Your task to perform on an android device: Look up the best rated coffee table on Ikea Image 0: 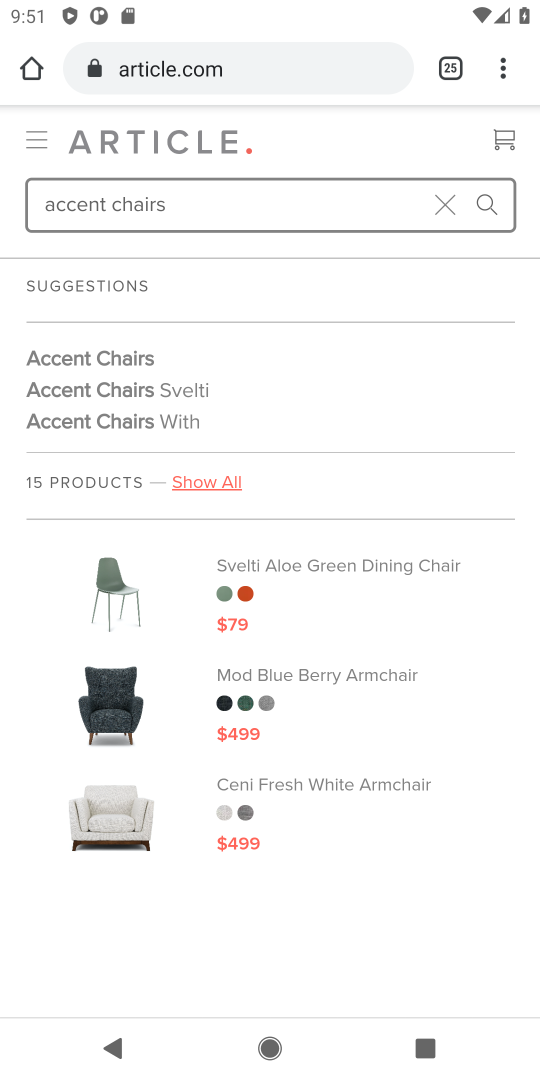
Step 0: press home button
Your task to perform on an android device: Look up the best rated coffee table on Ikea Image 1: 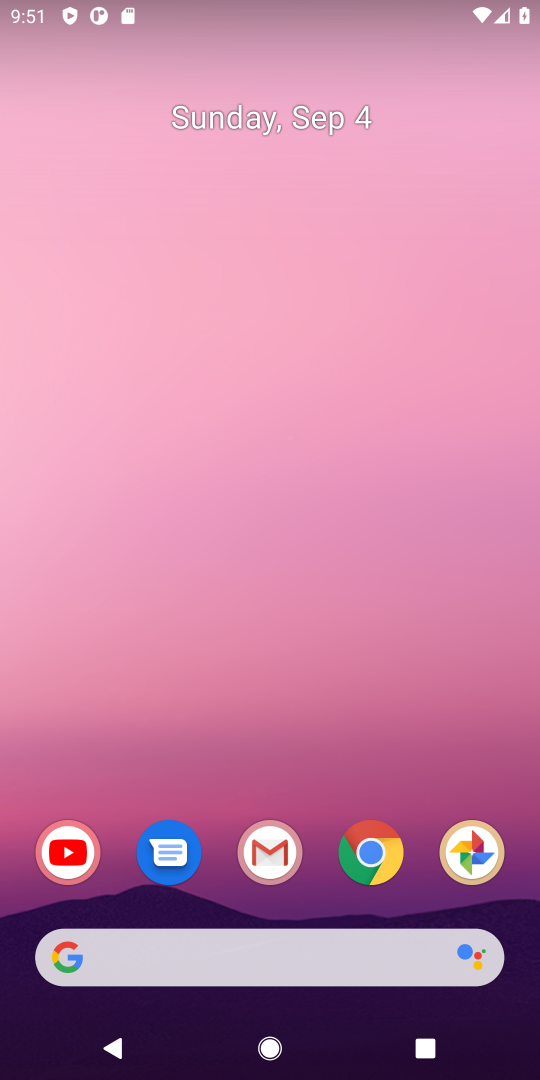
Step 1: drag from (174, 109) to (147, 48)
Your task to perform on an android device: Look up the best rated coffee table on Ikea Image 2: 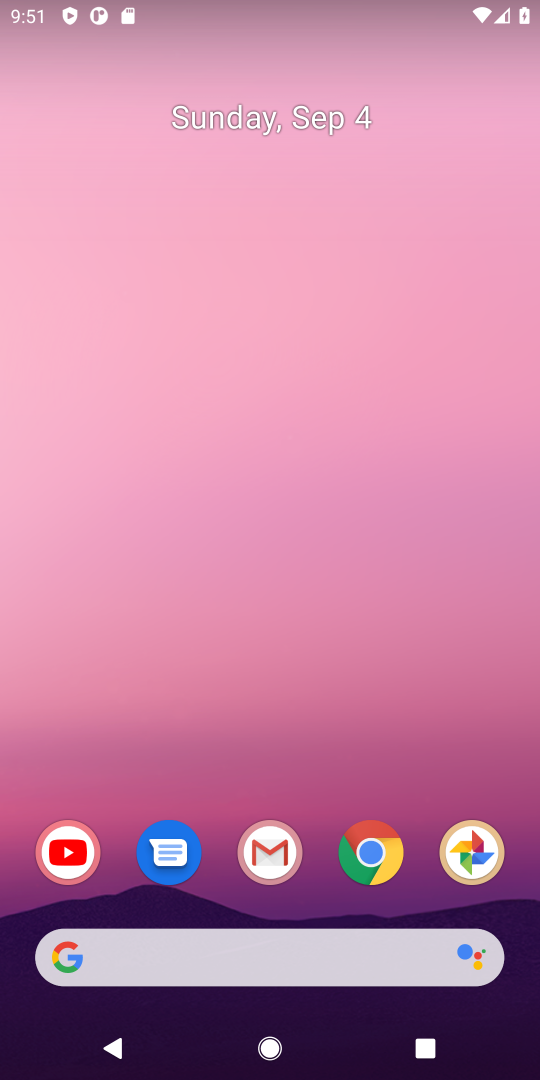
Step 2: drag from (414, 823) to (189, 174)
Your task to perform on an android device: Look up the best rated coffee table on Ikea Image 3: 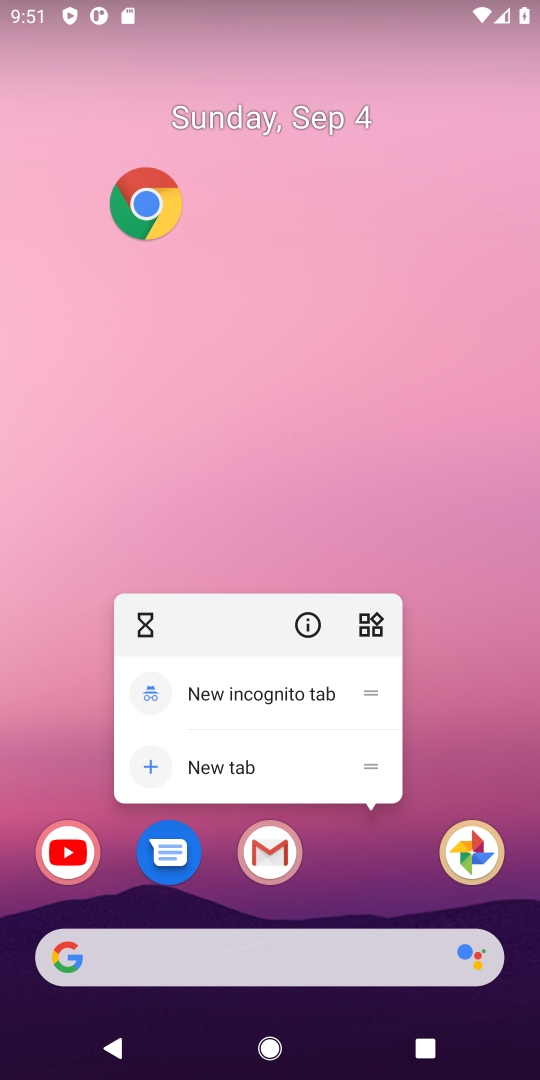
Step 3: click (307, 492)
Your task to perform on an android device: Look up the best rated coffee table on Ikea Image 4: 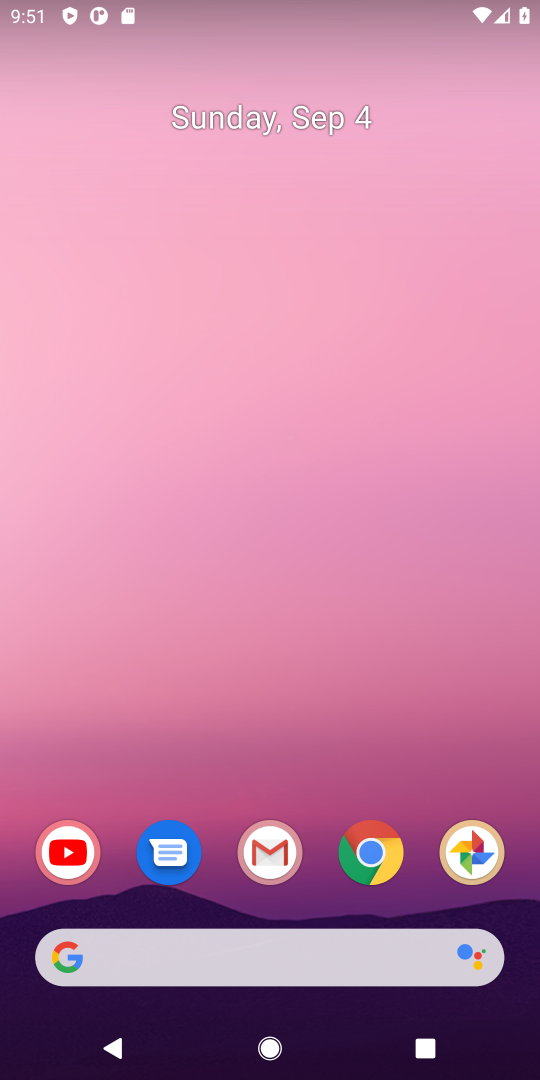
Step 4: drag from (361, 553) to (253, 12)
Your task to perform on an android device: Look up the best rated coffee table on Ikea Image 5: 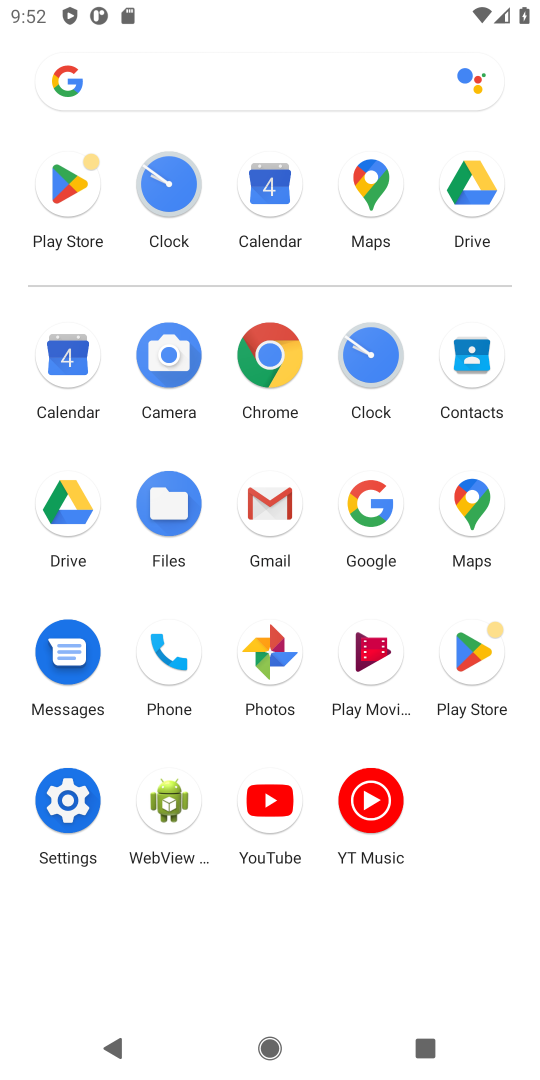
Step 5: click (346, 494)
Your task to perform on an android device: Look up the best rated coffee table on Ikea Image 6: 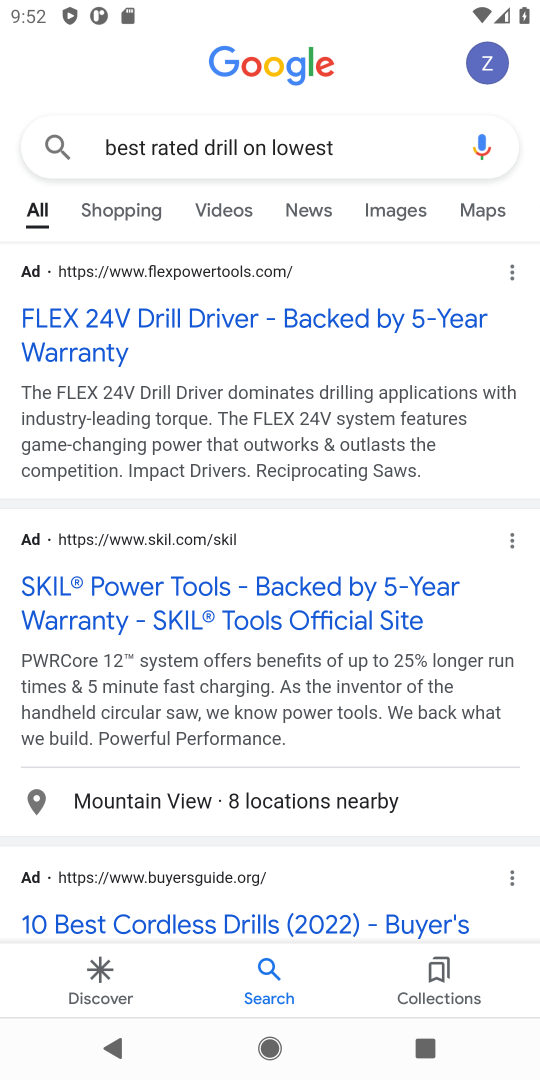
Step 6: press back button
Your task to perform on an android device: Look up the best rated coffee table on Ikea Image 7: 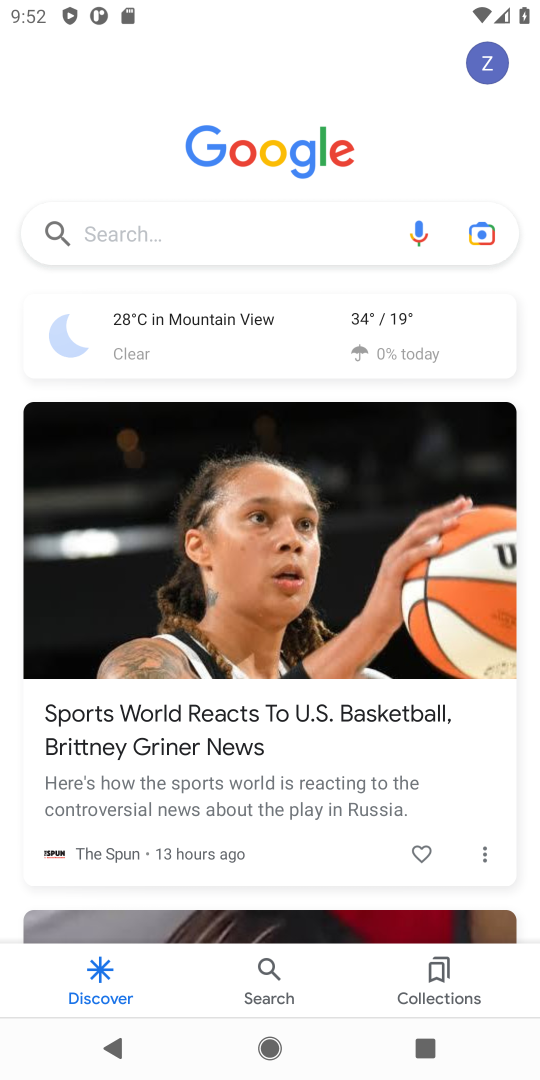
Step 7: click (124, 244)
Your task to perform on an android device: Look up the best rated coffee table on Ikea Image 8: 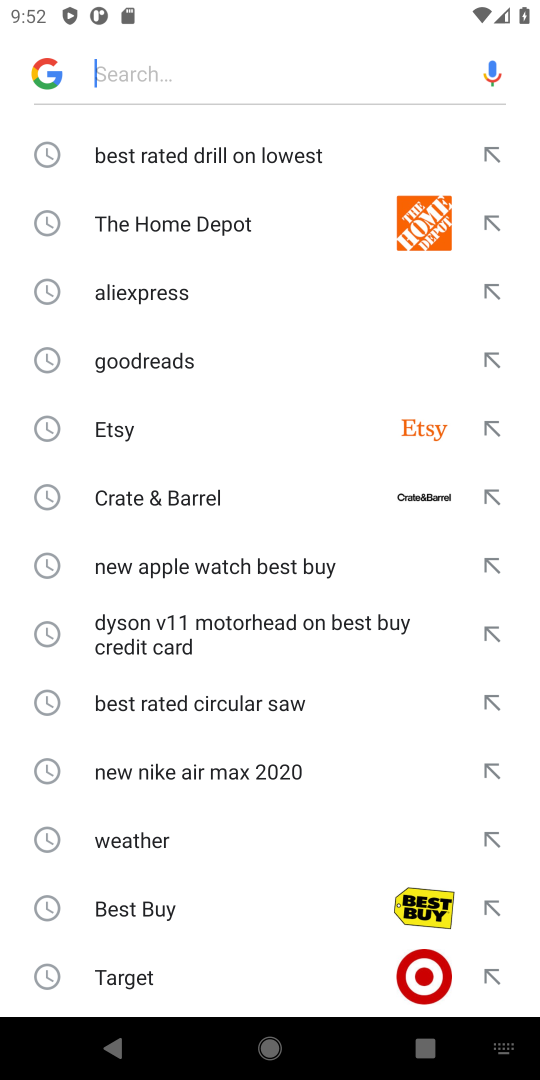
Step 8: type " Ikea"
Your task to perform on an android device: Look up the best rated coffee table on Ikea Image 9: 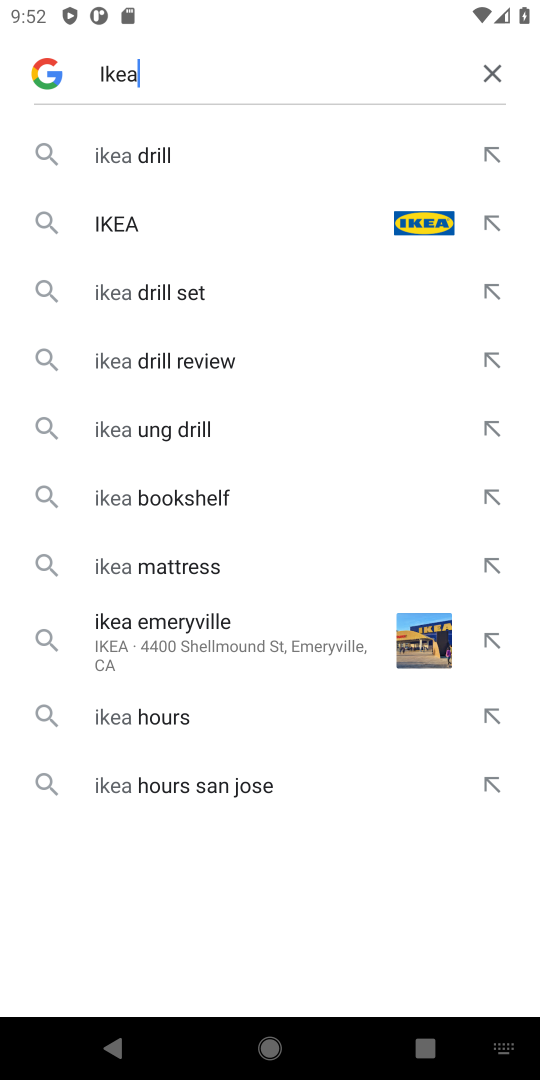
Step 9: click (115, 218)
Your task to perform on an android device: Look up the best rated coffee table on Ikea Image 10: 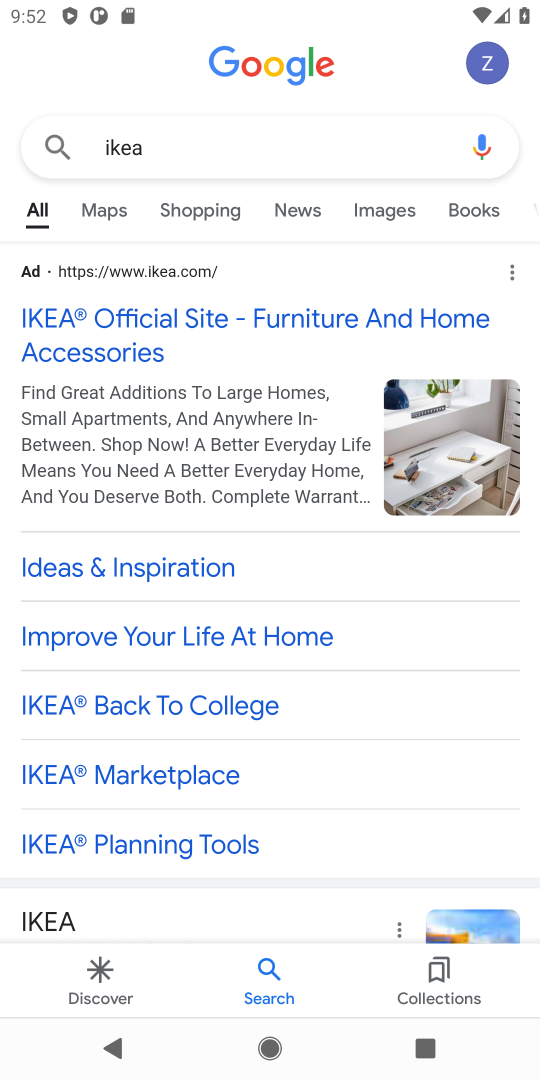
Step 10: click (203, 332)
Your task to perform on an android device: Look up the best rated coffee table on Ikea Image 11: 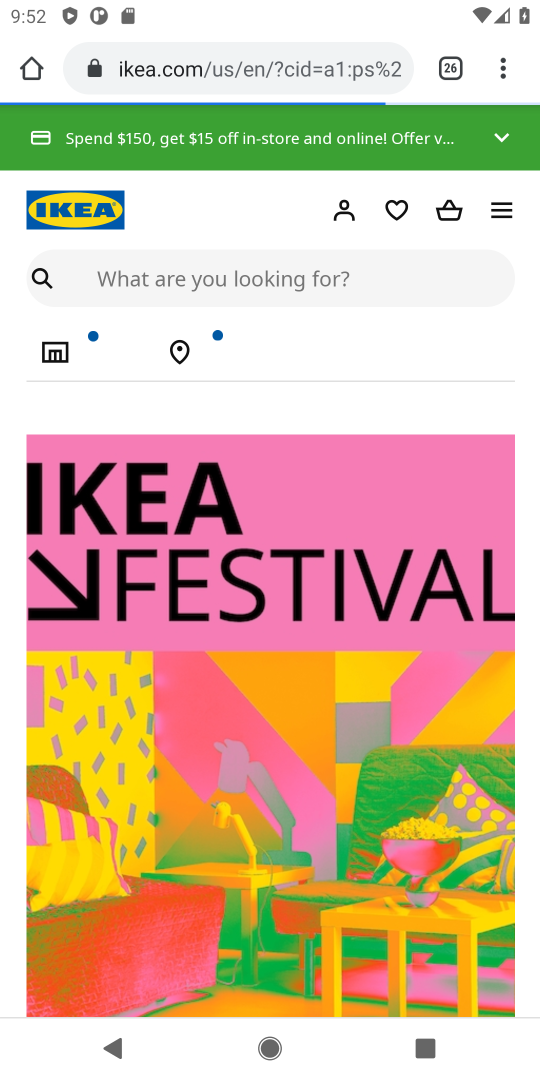
Step 11: click (193, 273)
Your task to perform on an android device: Look up the best rated coffee table on Ikea Image 12: 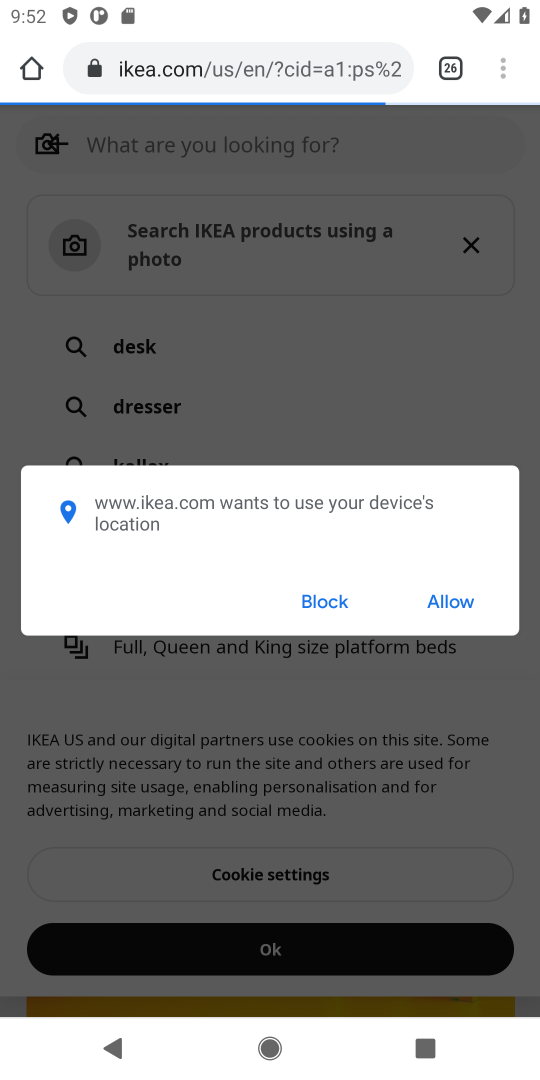
Step 12: click (320, 600)
Your task to perform on an android device: Look up the best rated coffee table on Ikea Image 13: 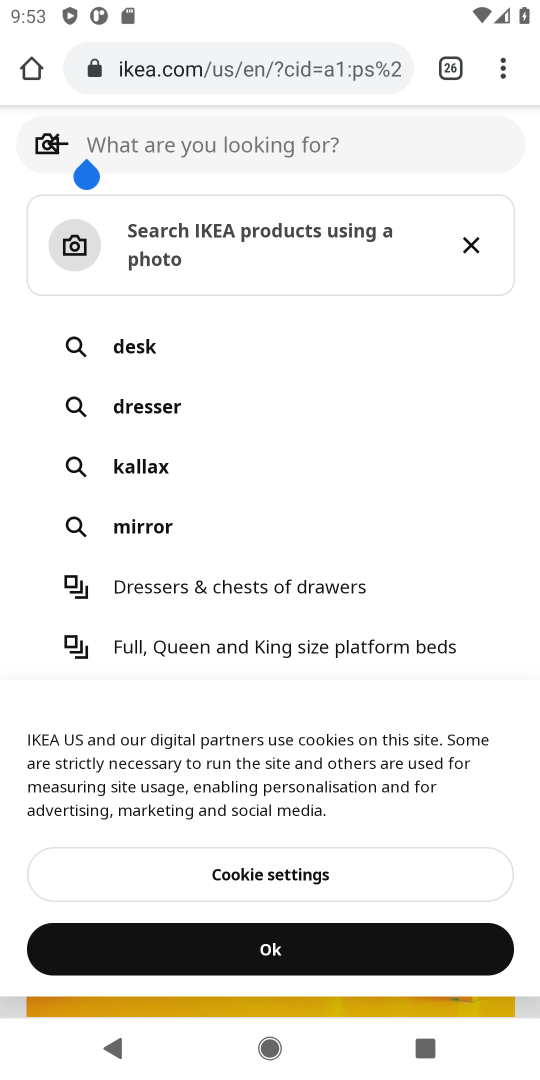
Step 13: click (180, 140)
Your task to perform on an android device: Look up the best rated coffee table on Ikea Image 14: 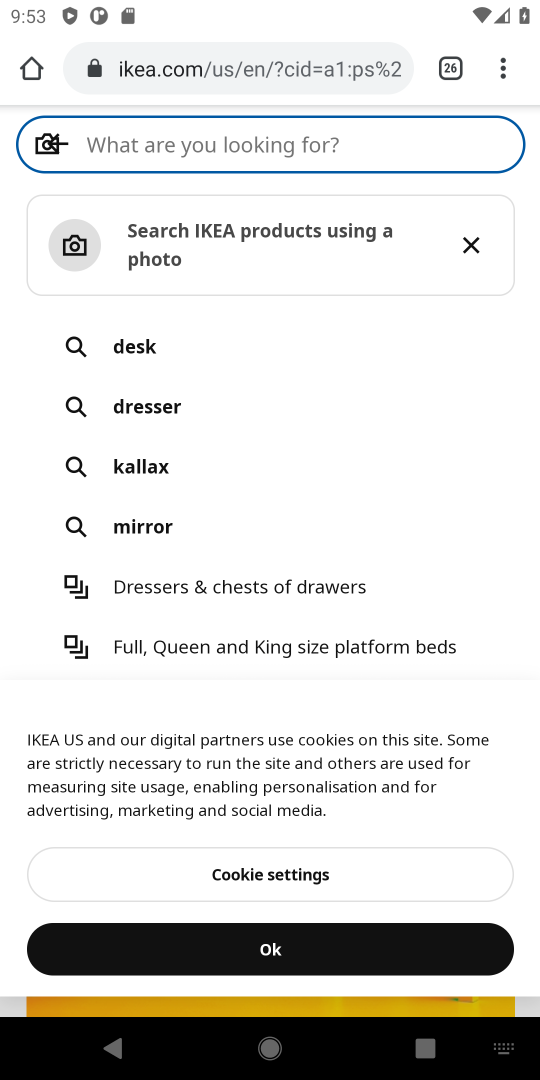
Step 14: type "coffee "
Your task to perform on an android device: Look up the best rated coffee table on Ikea Image 15: 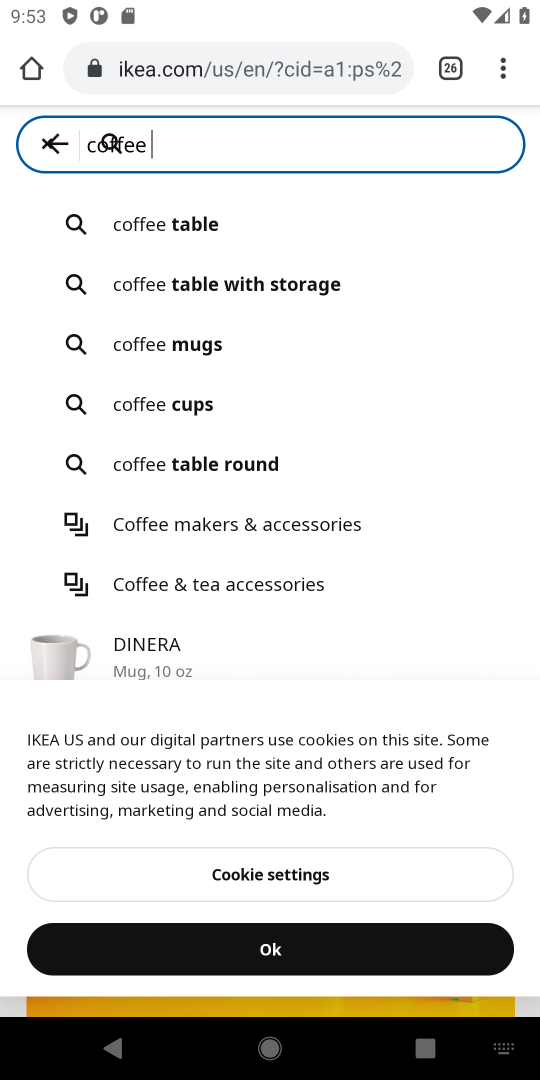
Step 15: click (178, 253)
Your task to perform on an android device: Look up the best rated coffee table on Ikea Image 16: 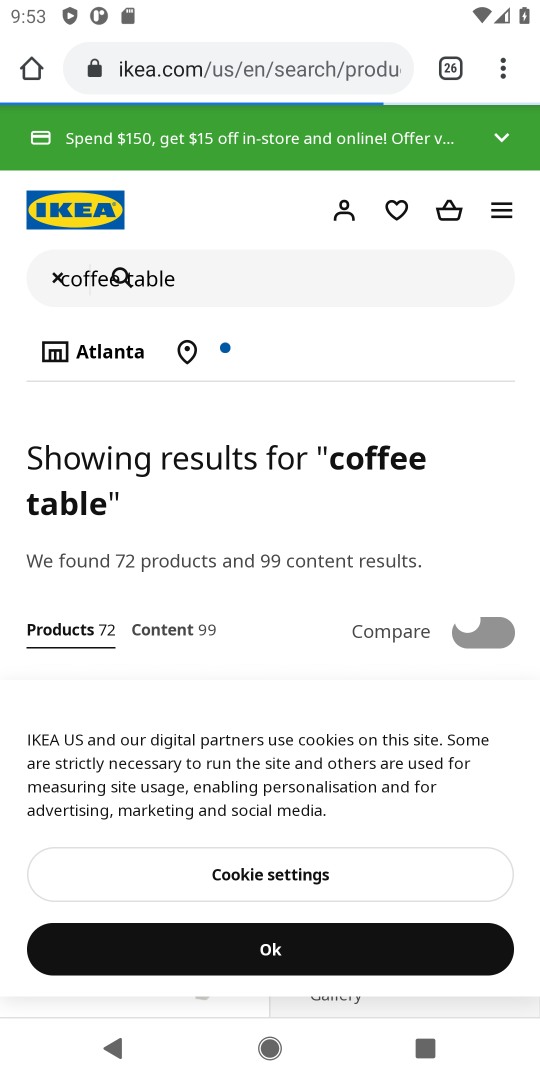
Step 16: task complete